Your task to perform on an android device: Go to notification settings Image 0: 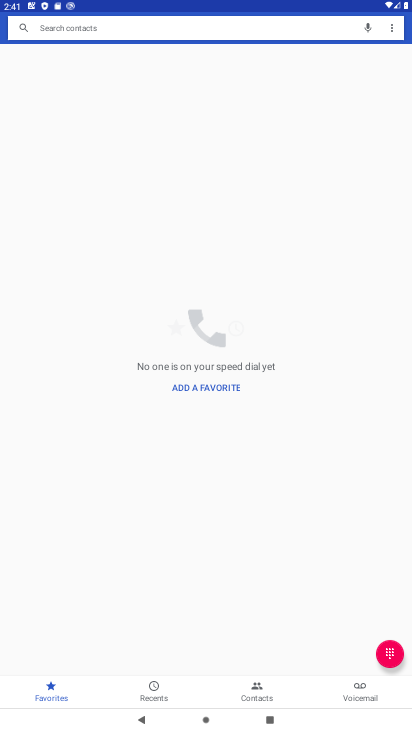
Step 0: press home button
Your task to perform on an android device: Go to notification settings Image 1: 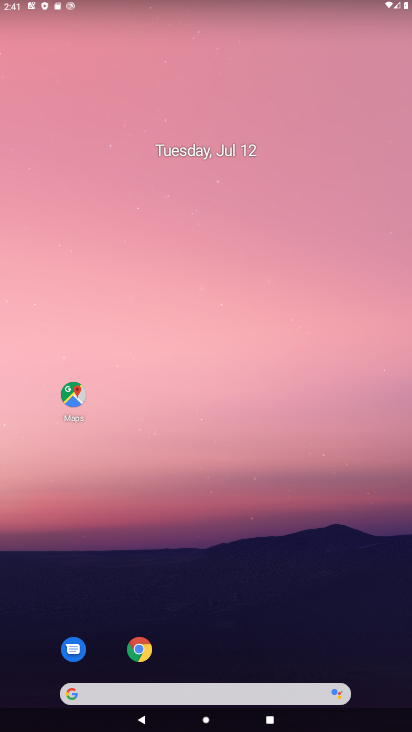
Step 1: drag from (227, 663) to (162, 191)
Your task to perform on an android device: Go to notification settings Image 2: 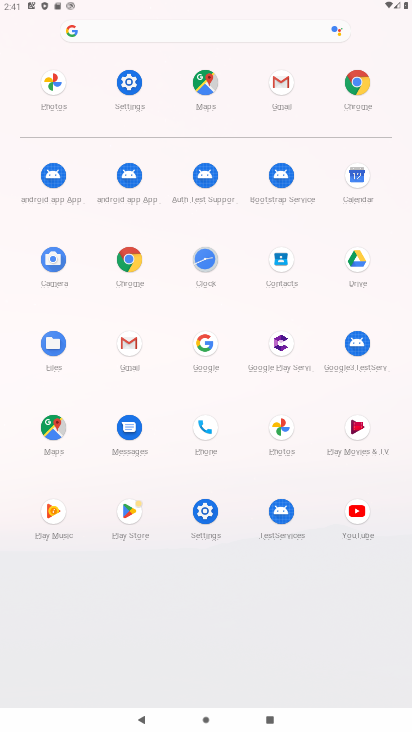
Step 2: click (135, 89)
Your task to perform on an android device: Go to notification settings Image 3: 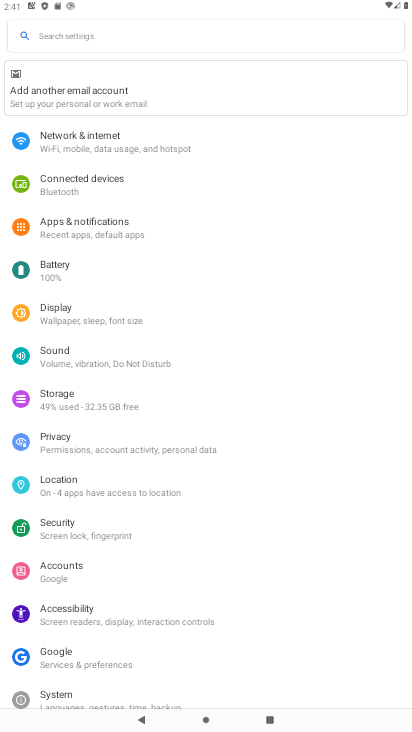
Step 3: click (155, 241)
Your task to perform on an android device: Go to notification settings Image 4: 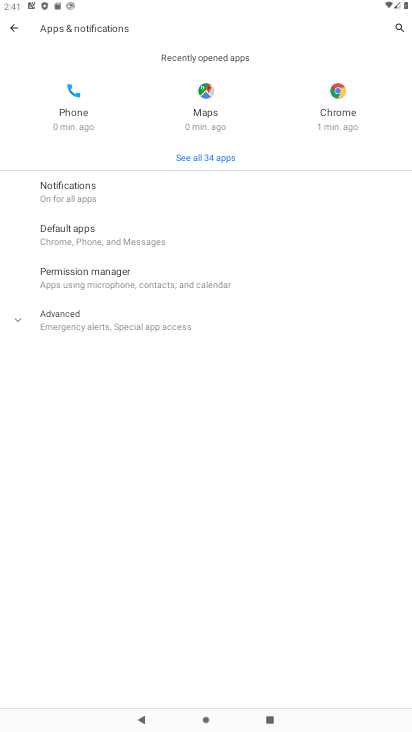
Step 4: click (81, 184)
Your task to perform on an android device: Go to notification settings Image 5: 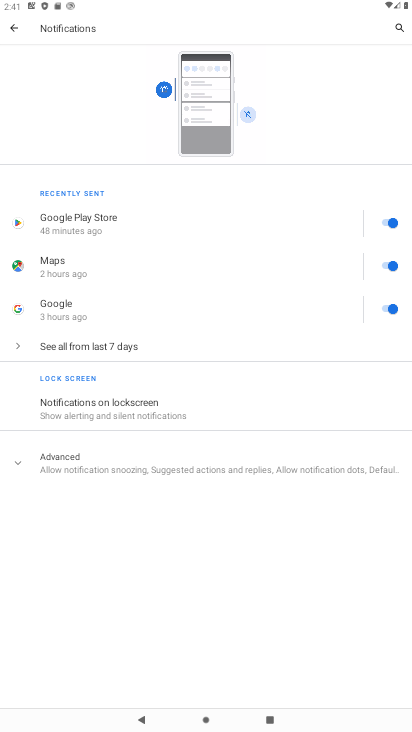
Step 5: click (114, 475)
Your task to perform on an android device: Go to notification settings Image 6: 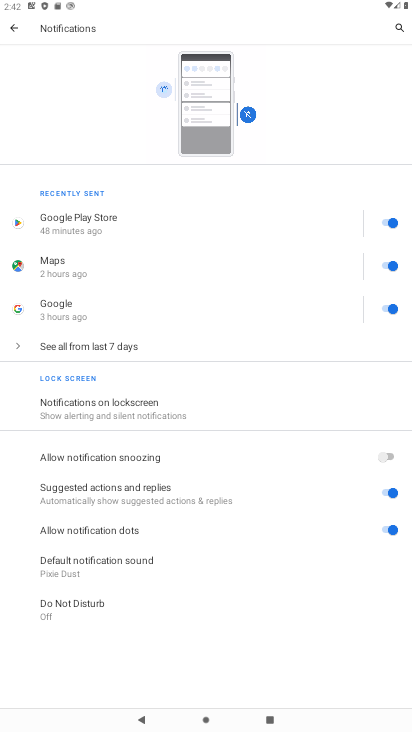
Step 6: task complete